Your task to perform on an android device: check google app version Image 0: 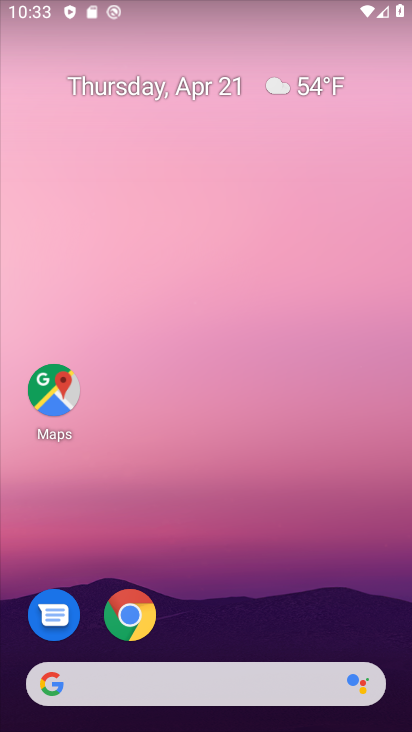
Step 0: drag from (306, 618) to (301, 76)
Your task to perform on an android device: check google app version Image 1: 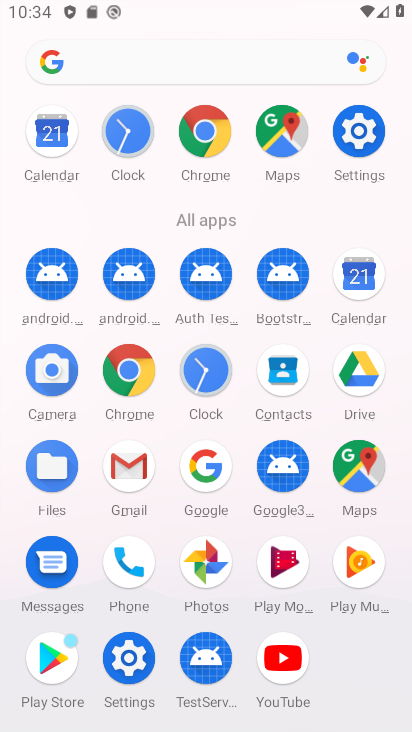
Step 1: click (209, 471)
Your task to perform on an android device: check google app version Image 2: 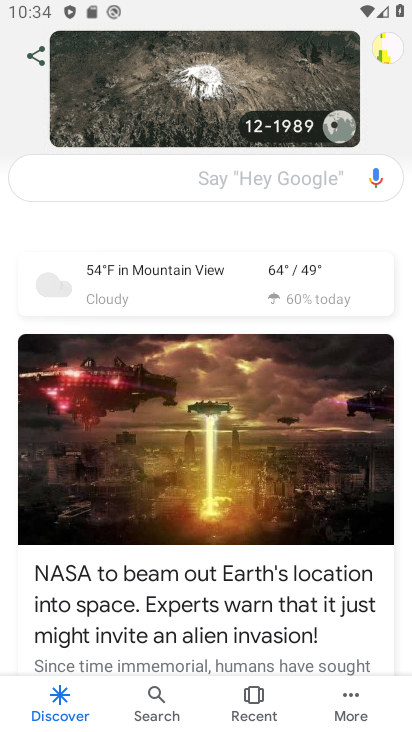
Step 2: click (338, 708)
Your task to perform on an android device: check google app version Image 3: 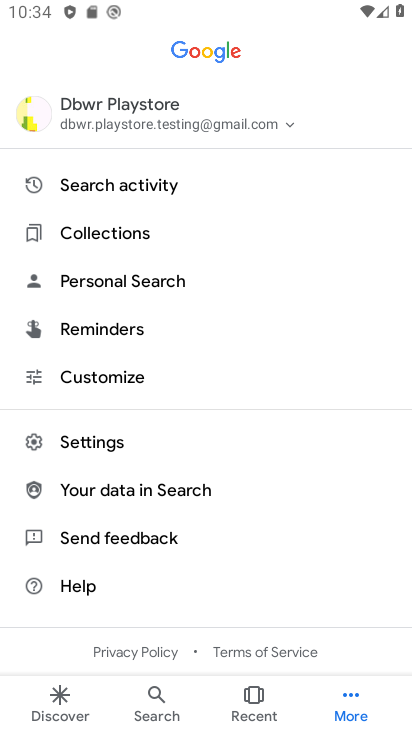
Step 3: click (119, 437)
Your task to perform on an android device: check google app version Image 4: 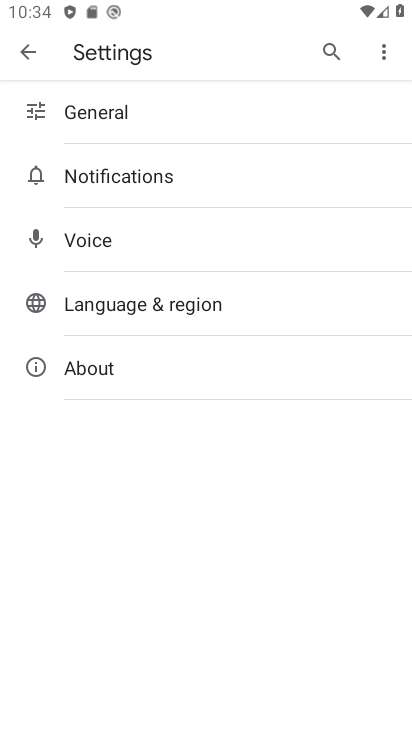
Step 4: click (118, 377)
Your task to perform on an android device: check google app version Image 5: 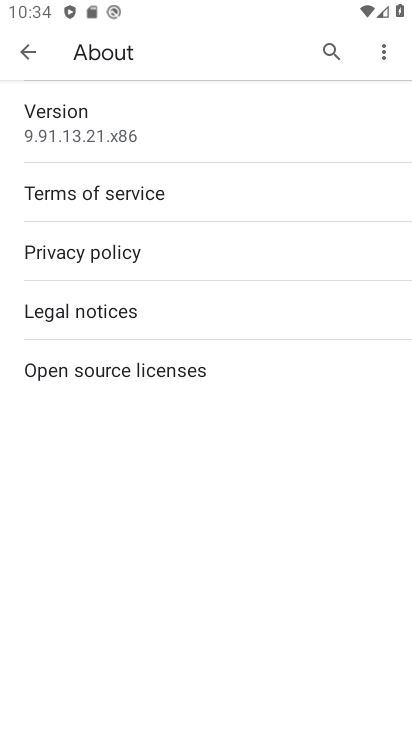
Step 5: click (119, 129)
Your task to perform on an android device: check google app version Image 6: 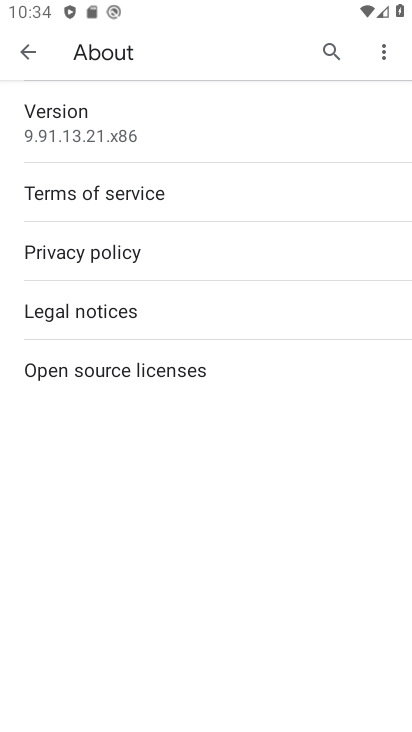
Step 6: task complete